Your task to perform on an android device: allow cookies in the chrome app Image 0: 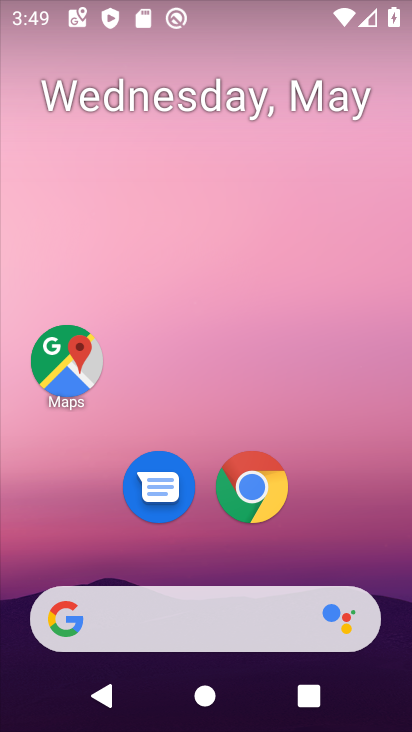
Step 0: drag from (328, 498) to (295, 35)
Your task to perform on an android device: allow cookies in the chrome app Image 1: 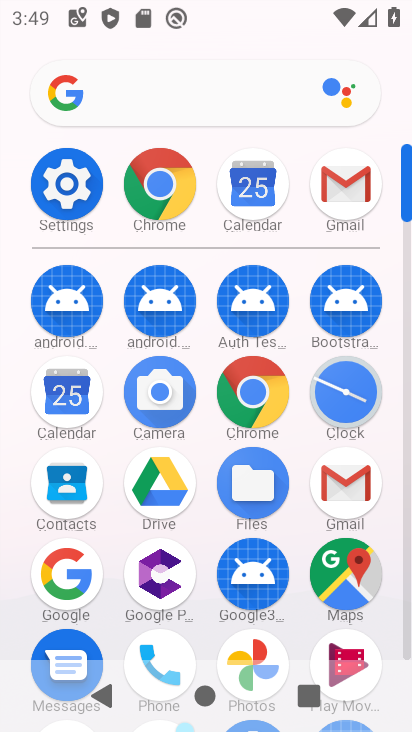
Step 1: drag from (12, 569) to (28, 290)
Your task to perform on an android device: allow cookies in the chrome app Image 2: 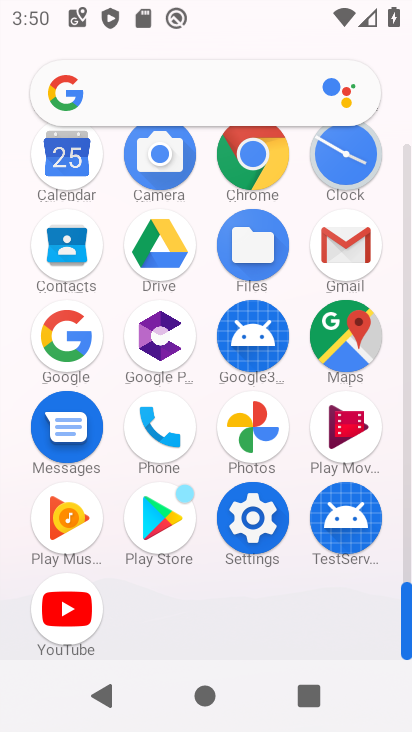
Step 2: click (250, 152)
Your task to perform on an android device: allow cookies in the chrome app Image 3: 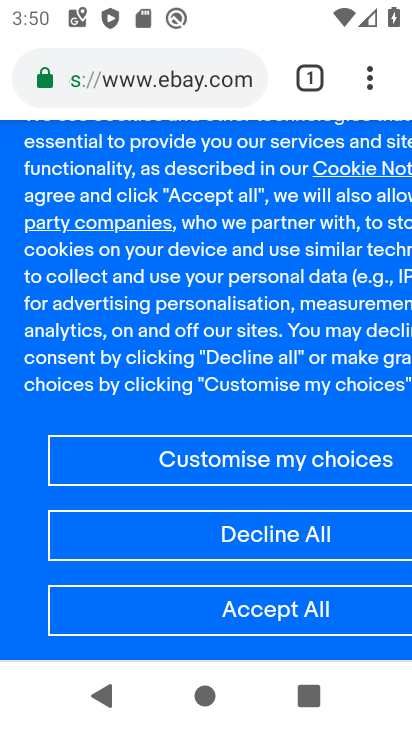
Step 3: drag from (368, 80) to (137, 547)
Your task to perform on an android device: allow cookies in the chrome app Image 4: 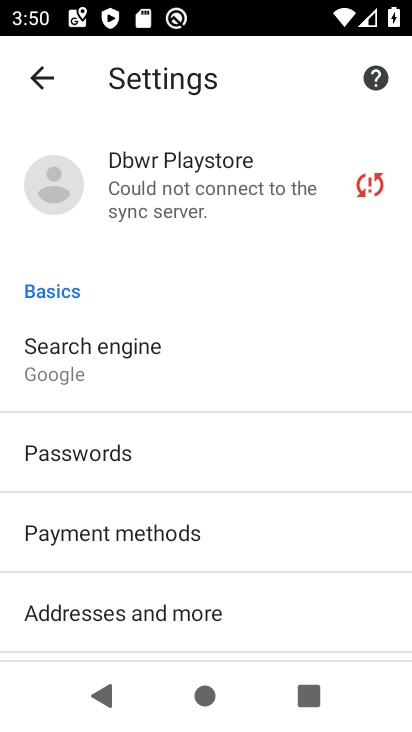
Step 4: drag from (280, 583) to (277, 215)
Your task to perform on an android device: allow cookies in the chrome app Image 5: 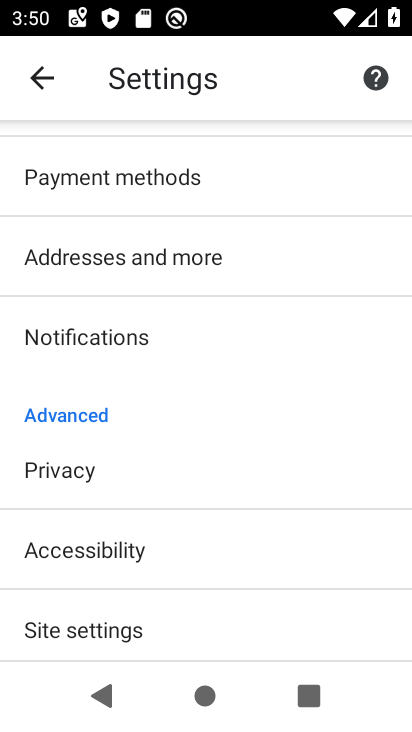
Step 5: drag from (200, 579) to (227, 224)
Your task to perform on an android device: allow cookies in the chrome app Image 6: 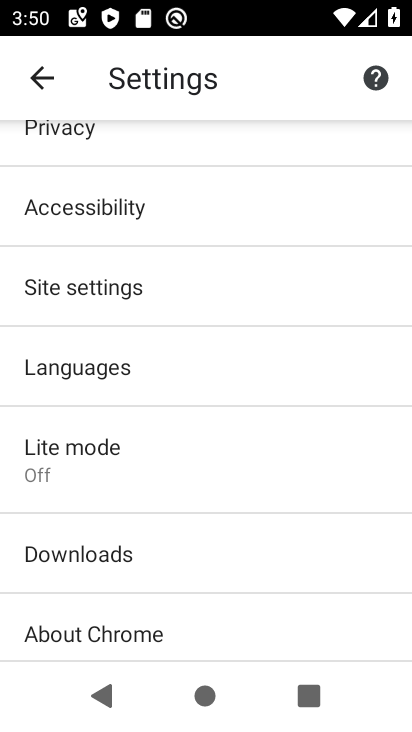
Step 6: click (150, 286)
Your task to perform on an android device: allow cookies in the chrome app Image 7: 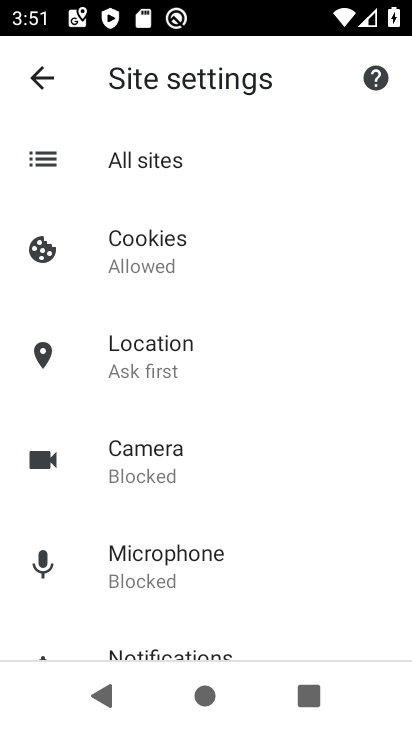
Step 7: task complete